Your task to perform on an android device: Go to Android settings Image 0: 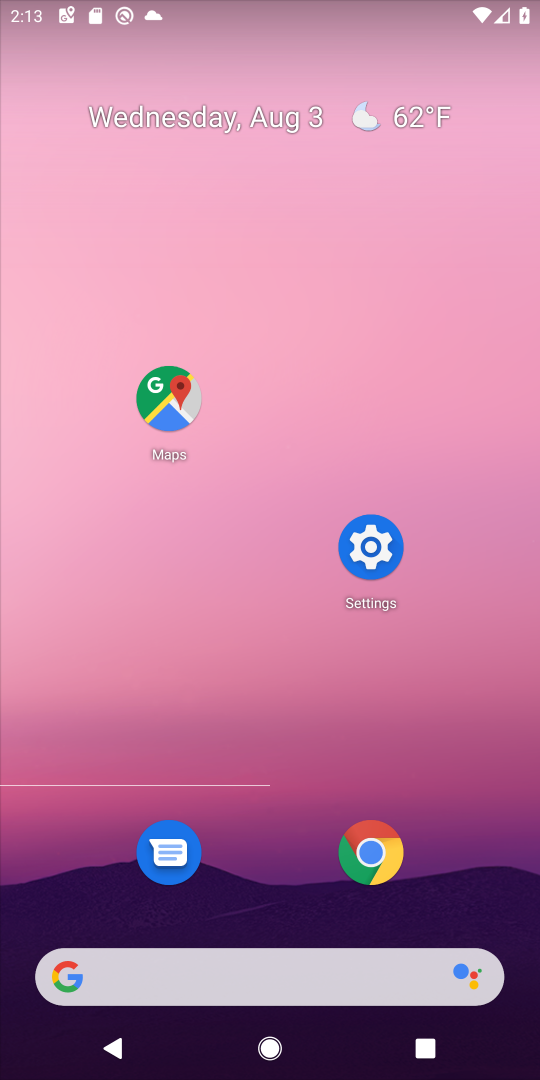
Step 0: press home button
Your task to perform on an android device: Go to Android settings Image 1: 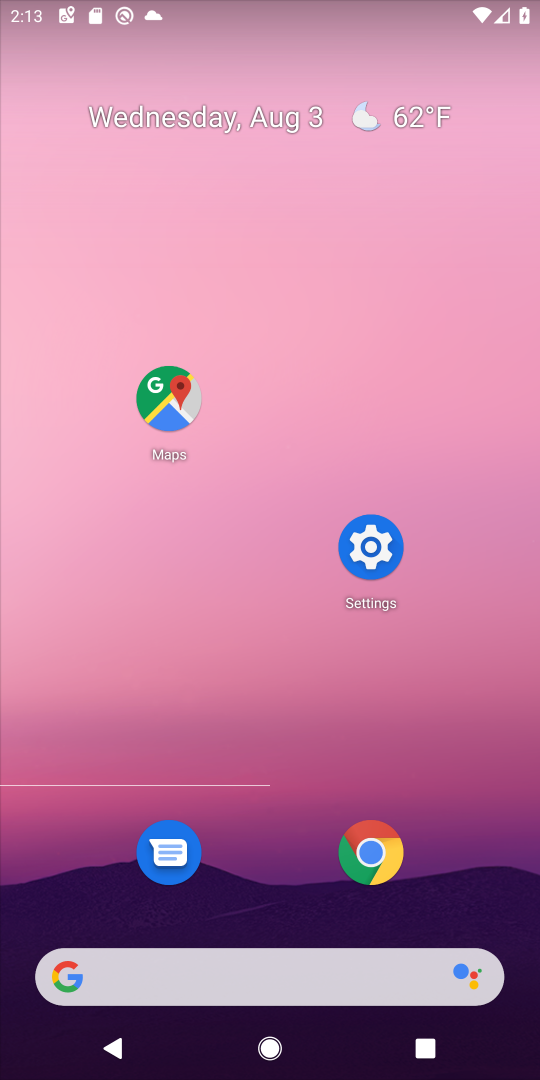
Step 1: click (369, 550)
Your task to perform on an android device: Go to Android settings Image 2: 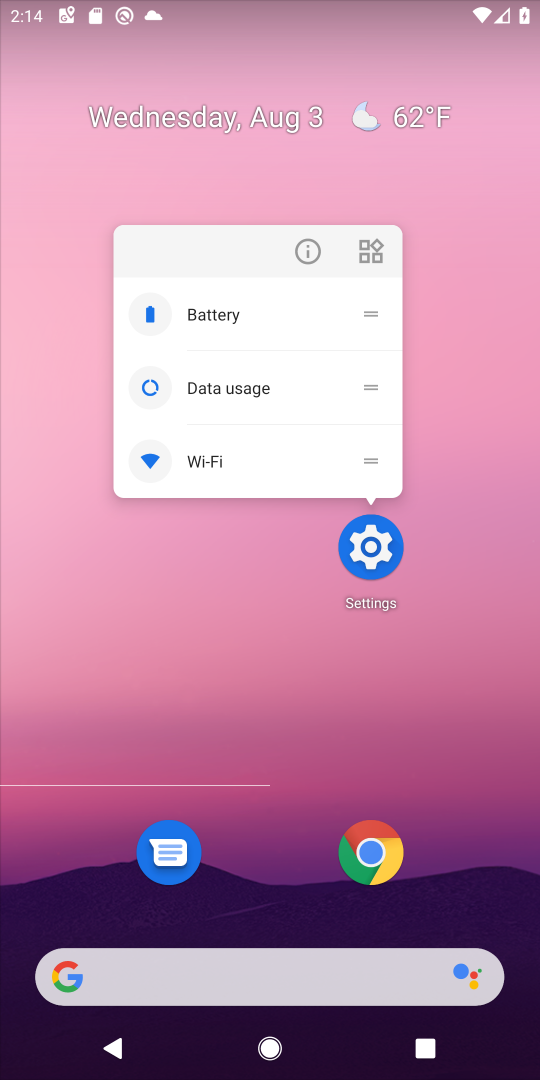
Step 2: click (369, 550)
Your task to perform on an android device: Go to Android settings Image 3: 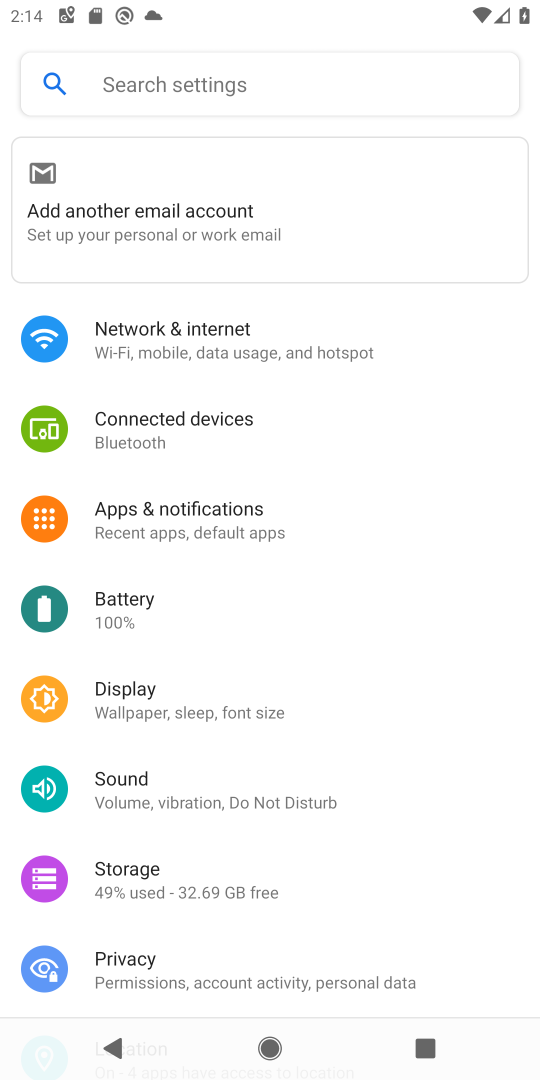
Step 3: task complete